Your task to perform on an android device: turn on javascript in the chrome app Image 0: 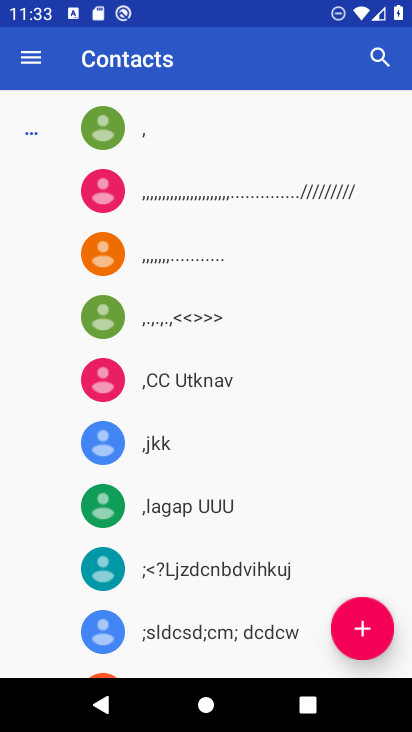
Step 0: press home button
Your task to perform on an android device: turn on javascript in the chrome app Image 1: 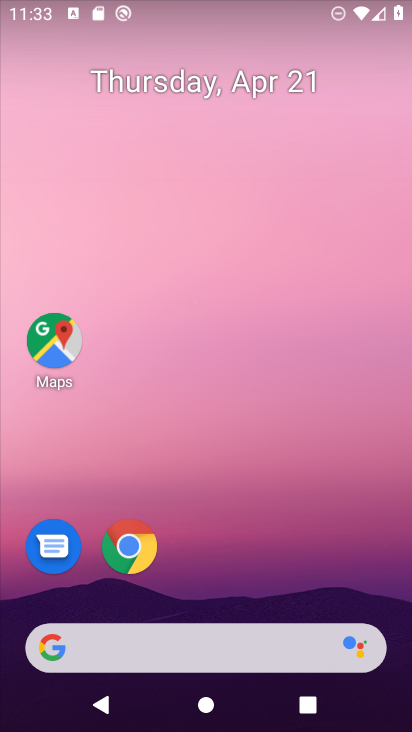
Step 1: click (126, 545)
Your task to perform on an android device: turn on javascript in the chrome app Image 2: 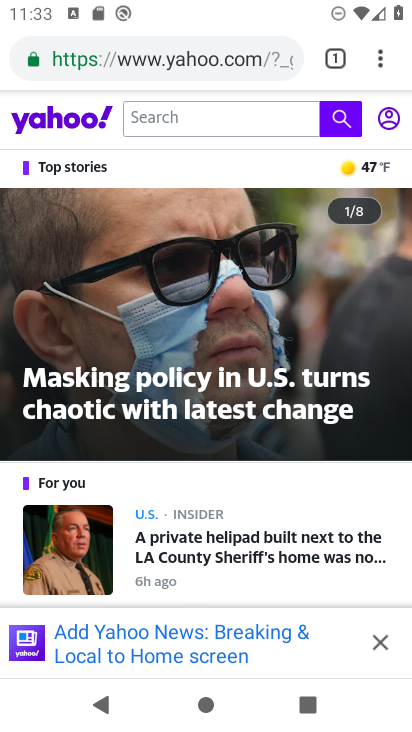
Step 2: click (381, 59)
Your task to perform on an android device: turn on javascript in the chrome app Image 3: 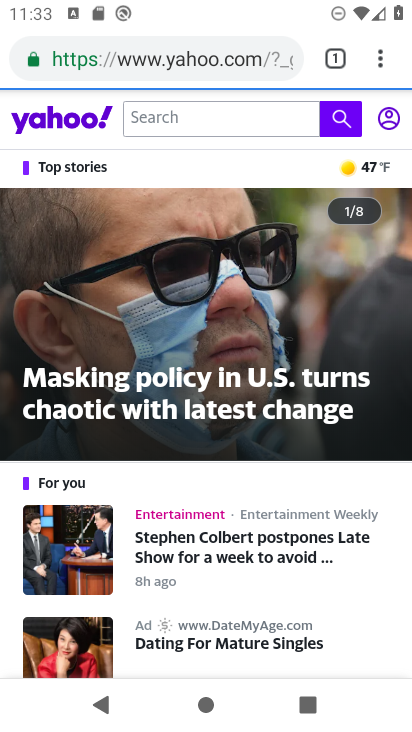
Step 3: click (377, 66)
Your task to perform on an android device: turn on javascript in the chrome app Image 4: 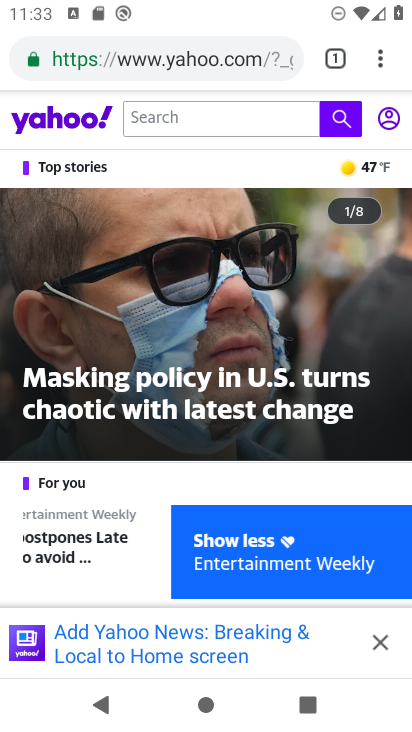
Step 4: click (377, 67)
Your task to perform on an android device: turn on javascript in the chrome app Image 5: 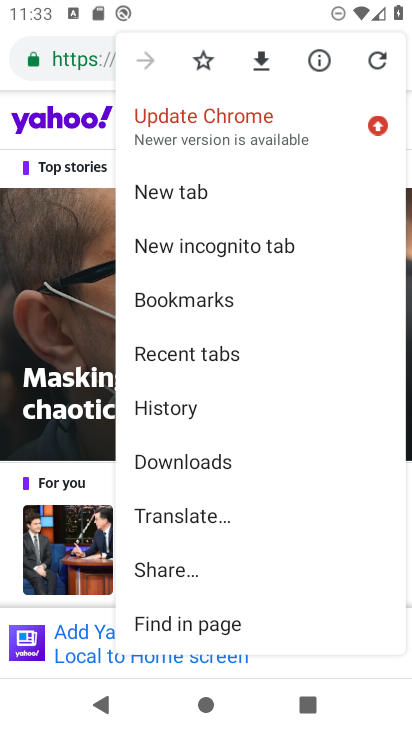
Step 5: drag from (260, 572) to (198, 360)
Your task to perform on an android device: turn on javascript in the chrome app Image 6: 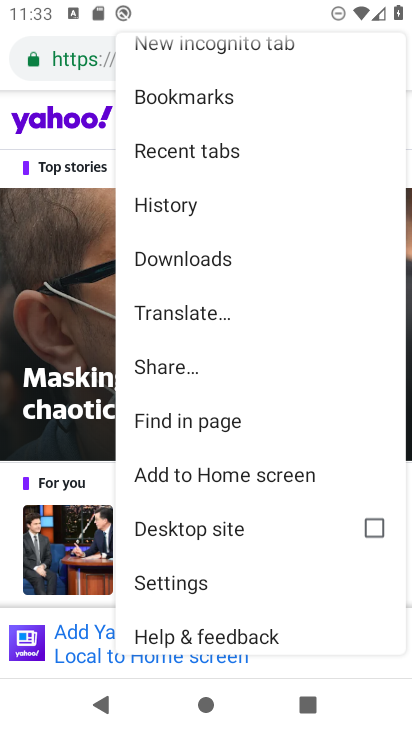
Step 6: click (197, 587)
Your task to perform on an android device: turn on javascript in the chrome app Image 7: 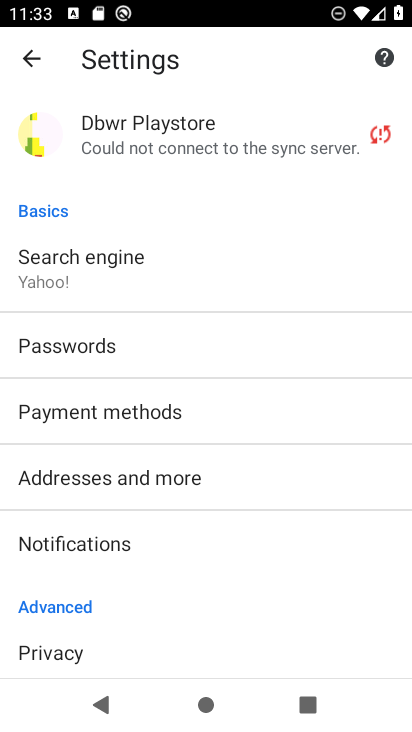
Step 7: drag from (231, 606) to (218, 264)
Your task to perform on an android device: turn on javascript in the chrome app Image 8: 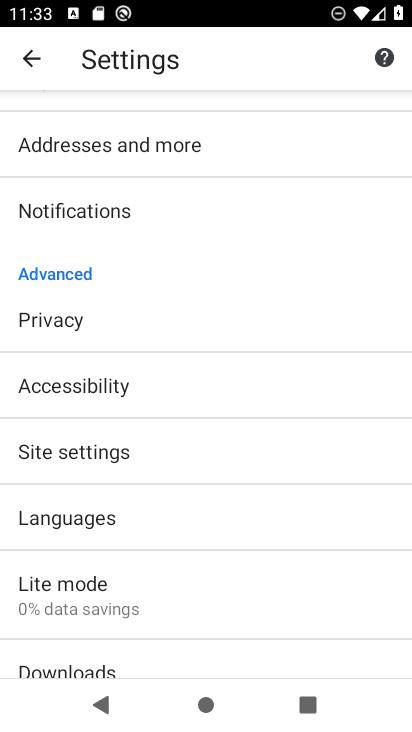
Step 8: click (86, 446)
Your task to perform on an android device: turn on javascript in the chrome app Image 9: 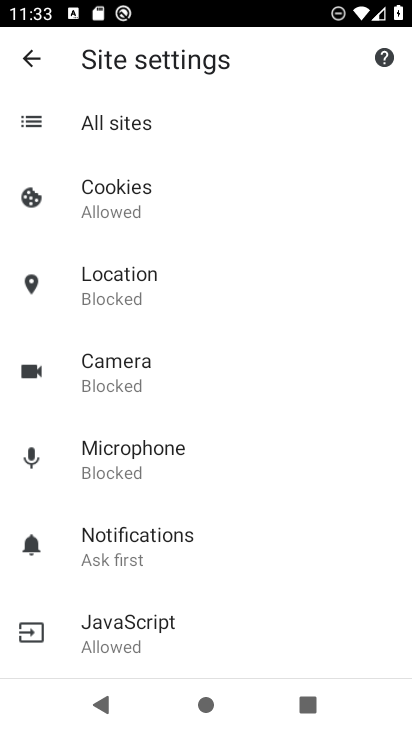
Step 9: drag from (220, 591) to (172, 315)
Your task to perform on an android device: turn on javascript in the chrome app Image 10: 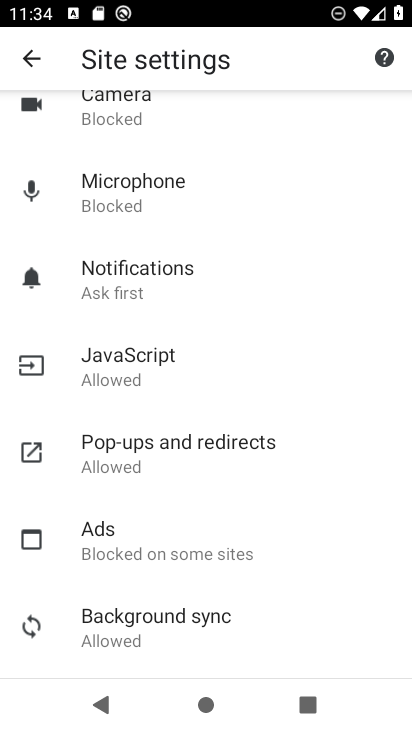
Step 10: click (92, 353)
Your task to perform on an android device: turn on javascript in the chrome app Image 11: 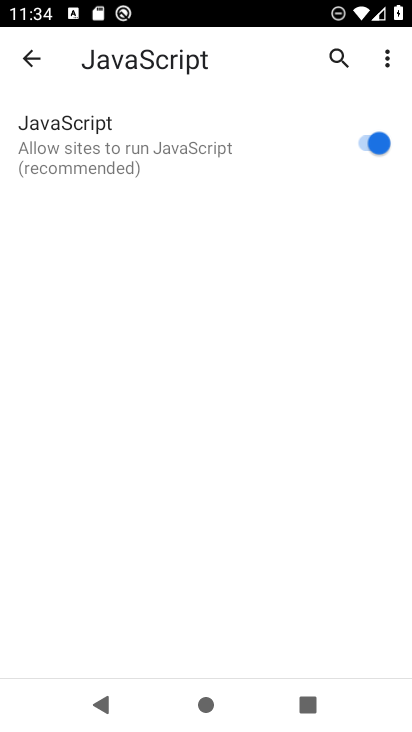
Step 11: task complete